Your task to perform on an android device: create a new album in the google photos Image 0: 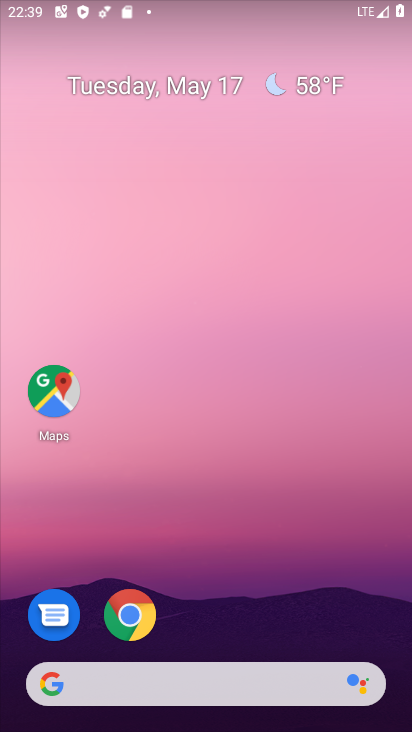
Step 0: drag from (188, 642) to (230, 68)
Your task to perform on an android device: create a new album in the google photos Image 1: 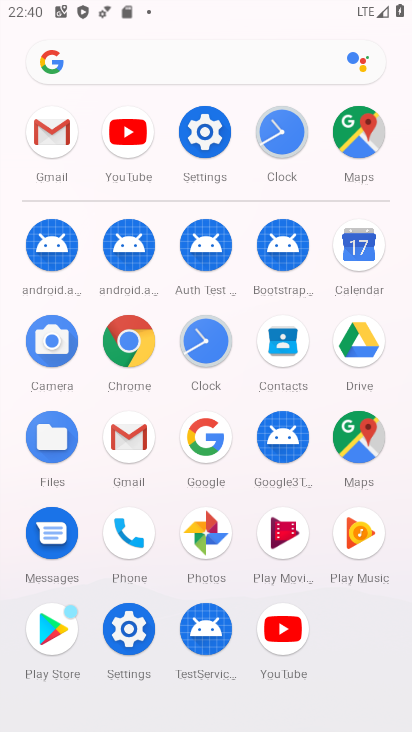
Step 1: click (192, 543)
Your task to perform on an android device: create a new album in the google photos Image 2: 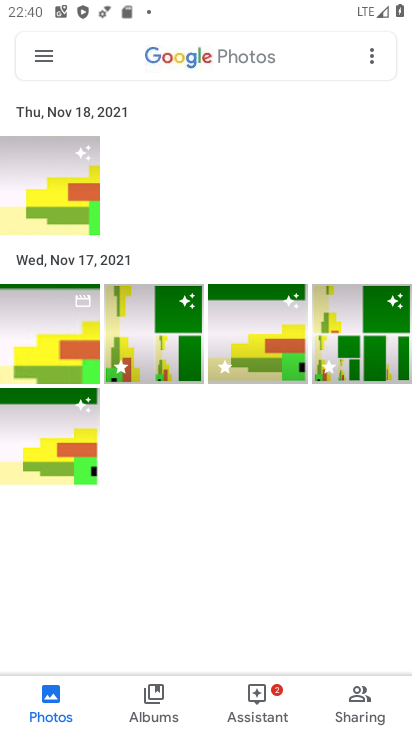
Step 2: click (378, 62)
Your task to perform on an android device: create a new album in the google photos Image 3: 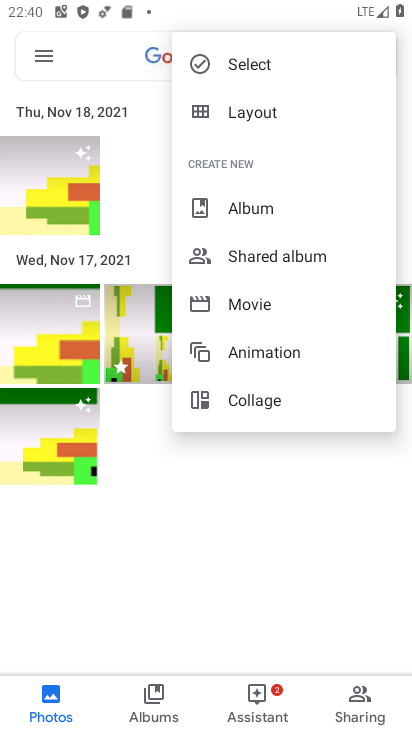
Step 3: click (238, 202)
Your task to perform on an android device: create a new album in the google photos Image 4: 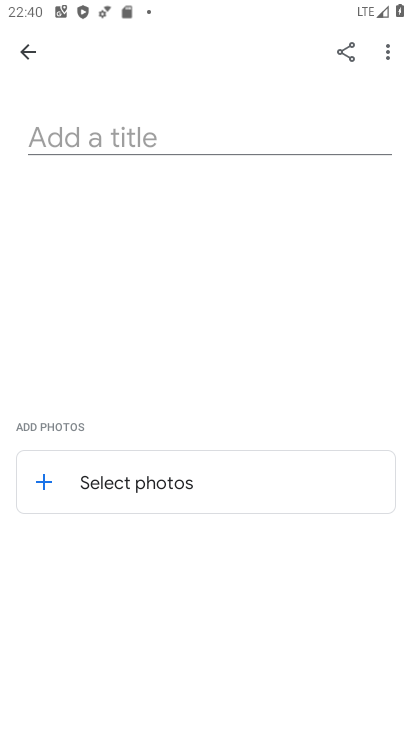
Step 4: click (115, 145)
Your task to perform on an android device: create a new album in the google photos Image 5: 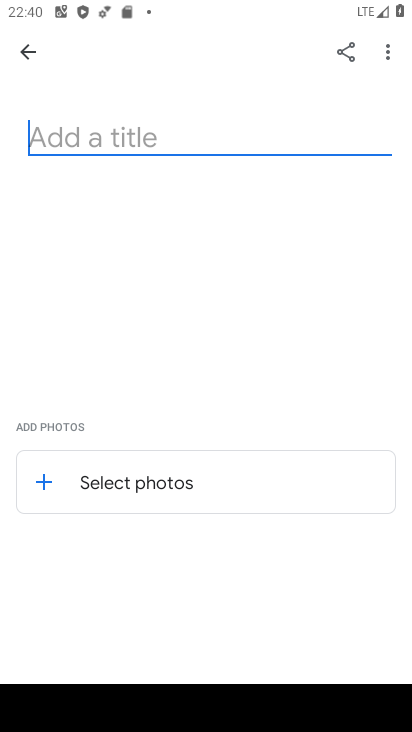
Step 5: type "sdvdsds"
Your task to perform on an android device: create a new album in the google photos Image 6: 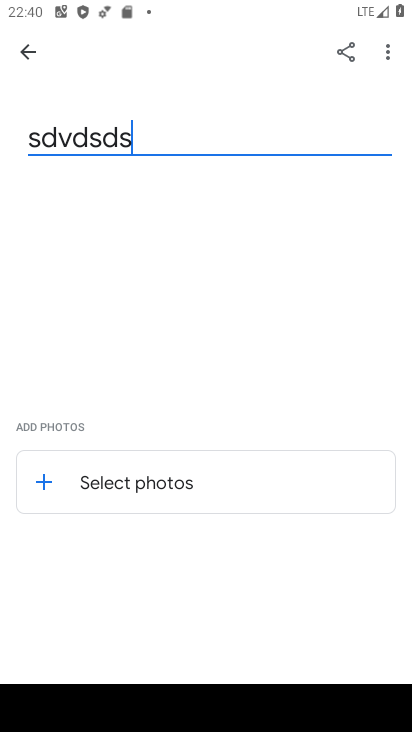
Step 6: click (40, 480)
Your task to perform on an android device: create a new album in the google photos Image 7: 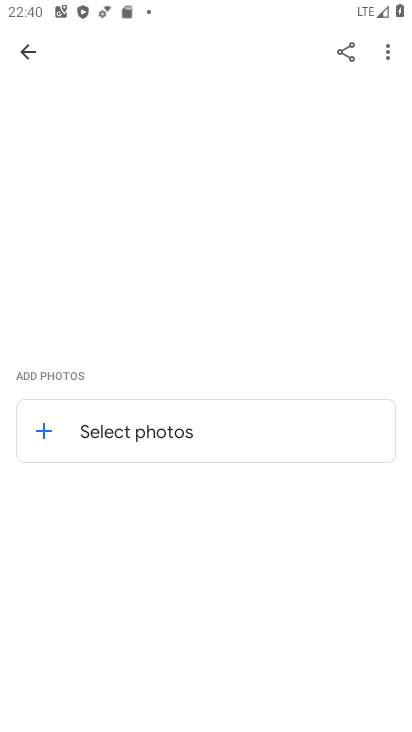
Step 7: click (46, 431)
Your task to perform on an android device: create a new album in the google photos Image 8: 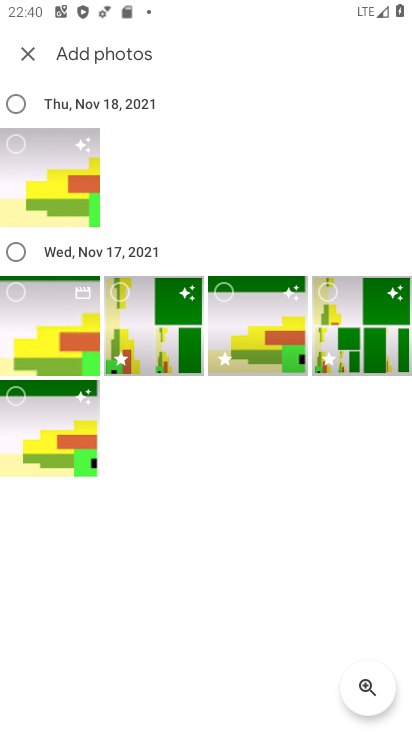
Step 8: click (65, 308)
Your task to perform on an android device: create a new album in the google photos Image 9: 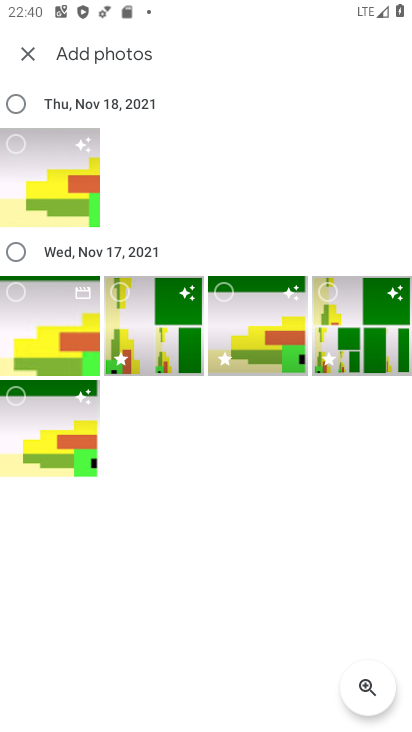
Step 9: click (113, 302)
Your task to perform on an android device: create a new album in the google photos Image 10: 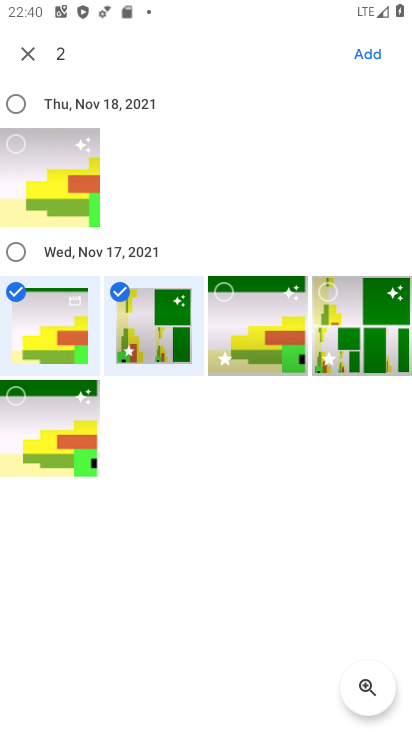
Step 10: click (361, 46)
Your task to perform on an android device: create a new album in the google photos Image 11: 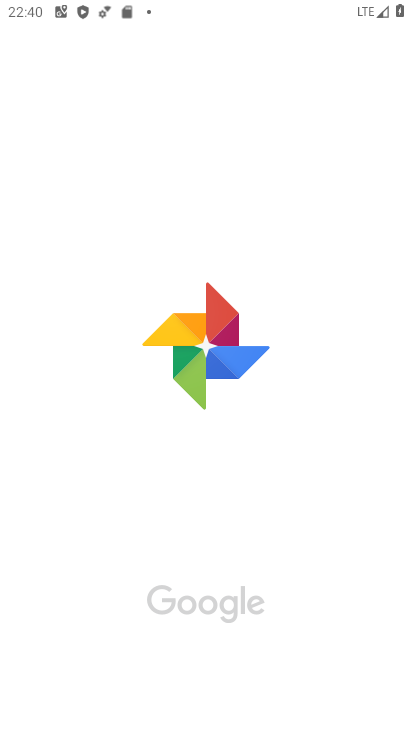
Step 11: task complete